Your task to perform on an android device: move an email to a new category in the gmail app Image 0: 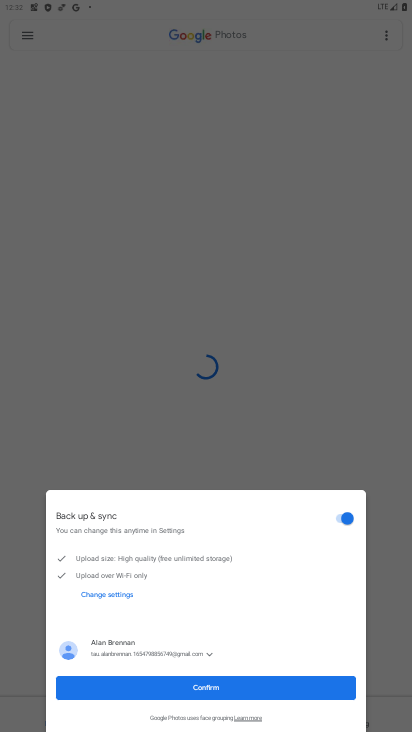
Step 0: press home button
Your task to perform on an android device: move an email to a new category in the gmail app Image 1: 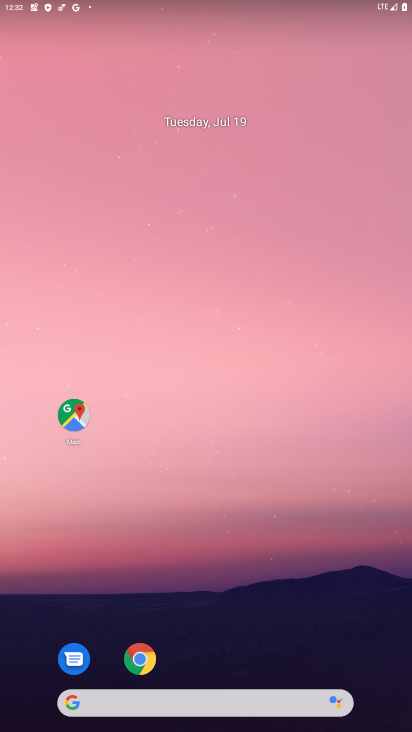
Step 1: drag from (193, 705) to (209, 200)
Your task to perform on an android device: move an email to a new category in the gmail app Image 2: 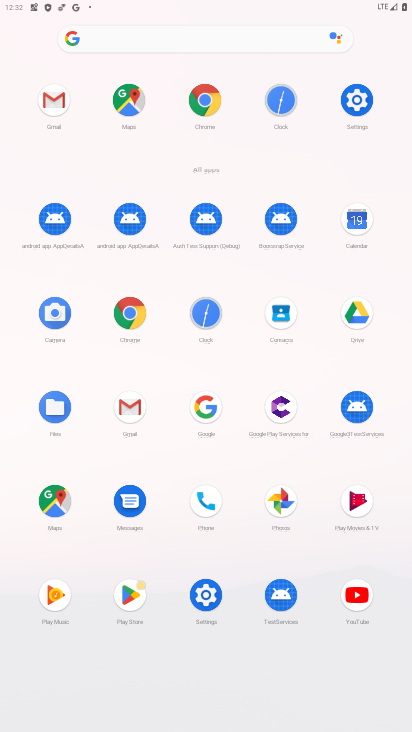
Step 2: click (52, 98)
Your task to perform on an android device: move an email to a new category in the gmail app Image 3: 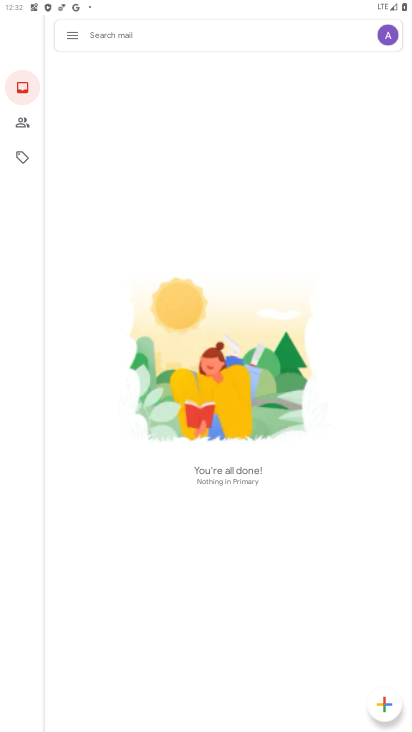
Step 3: click (70, 36)
Your task to perform on an android device: move an email to a new category in the gmail app Image 4: 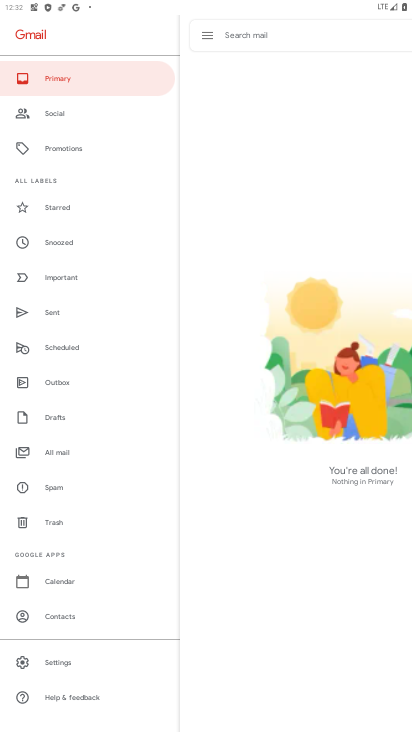
Step 4: click (65, 213)
Your task to perform on an android device: move an email to a new category in the gmail app Image 5: 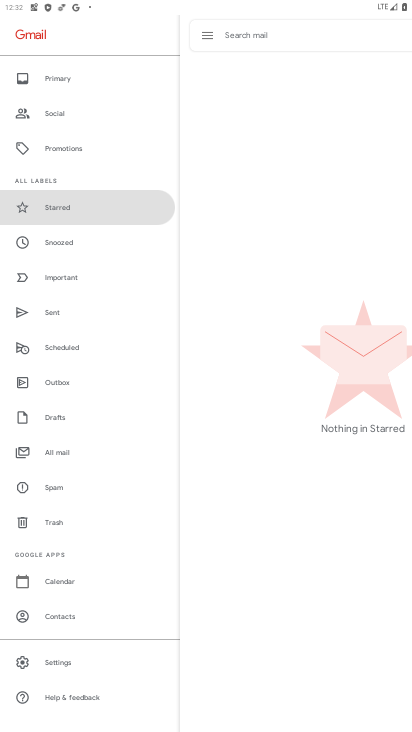
Step 5: click (68, 242)
Your task to perform on an android device: move an email to a new category in the gmail app Image 6: 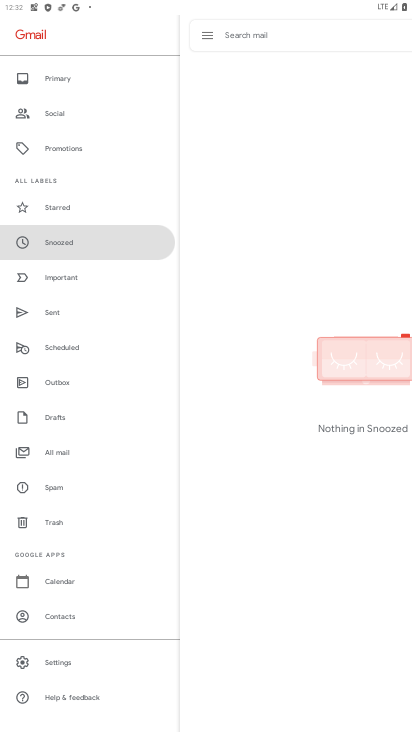
Step 6: click (62, 282)
Your task to perform on an android device: move an email to a new category in the gmail app Image 7: 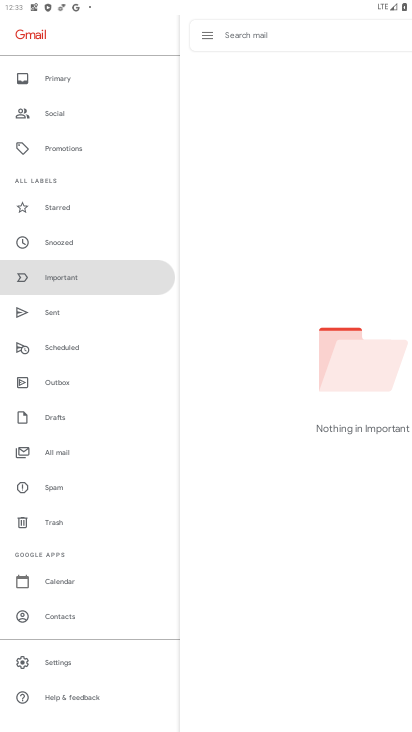
Step 7: click (59, 311)
Your task to perform on an android device: move an email to a new category in the gmail app Image 8: 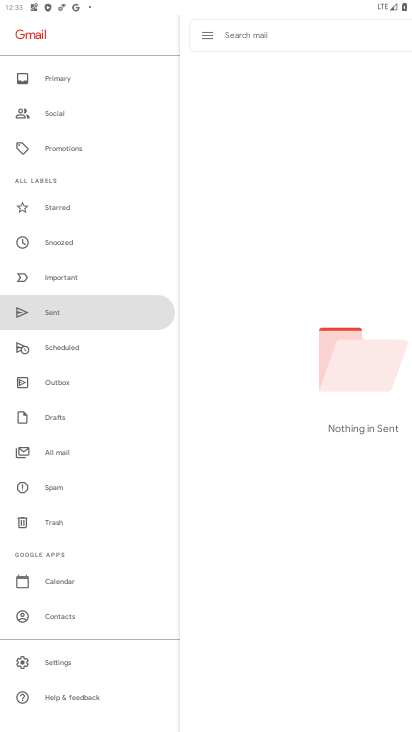
Step 8: click (58, 345)
Your task to perform on an android device: move an email to a new category in the gmail app Image 9: 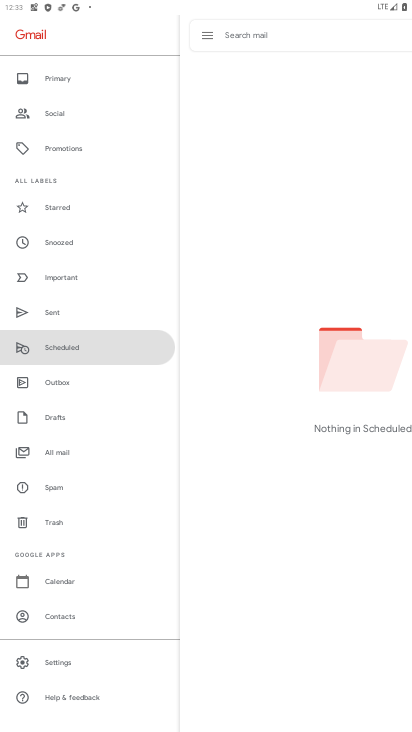
Step 9: click (60, 385)
Your task to perform on an android device: move an email to a new category in the gmail app Image 10: 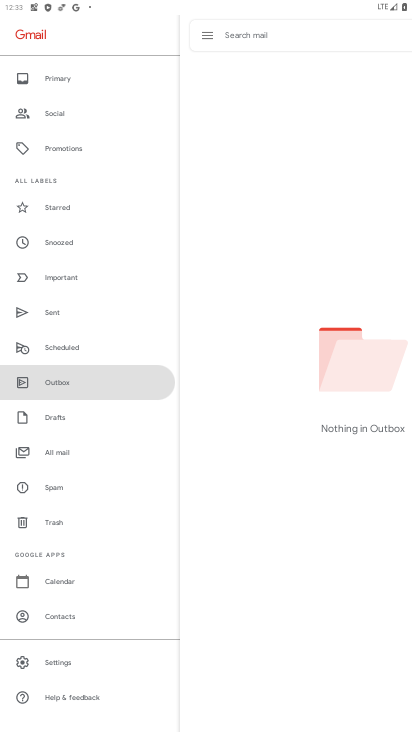
Step 10: click (57, 415)
Your task to perform on an android device: move an email to a new category in the gmail app Image 11: 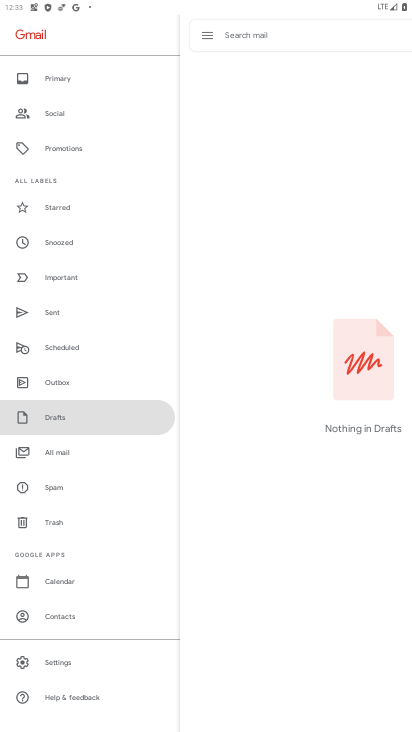
Step 11: click (62, 449)
Your task to perform on an android device: move an email to a new category in the gmail app Image 12: 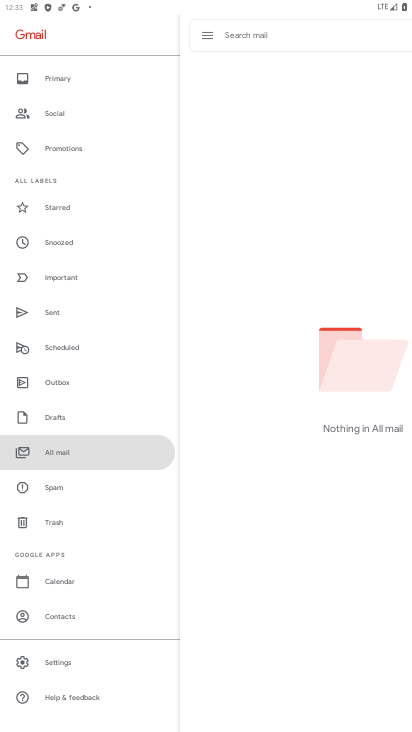
Step 12: task complete